Your task to perform on an android device: open wifi settings Image 0: 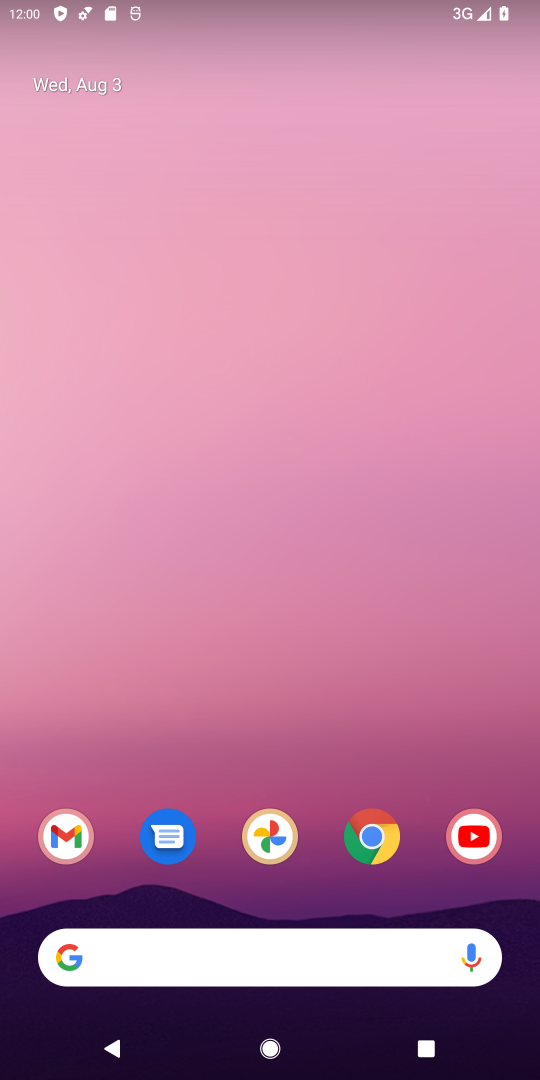
Step 0: drag from (251, 876) to (274, 565)
Your task to perform on an android device: open wifi settings Image 1: 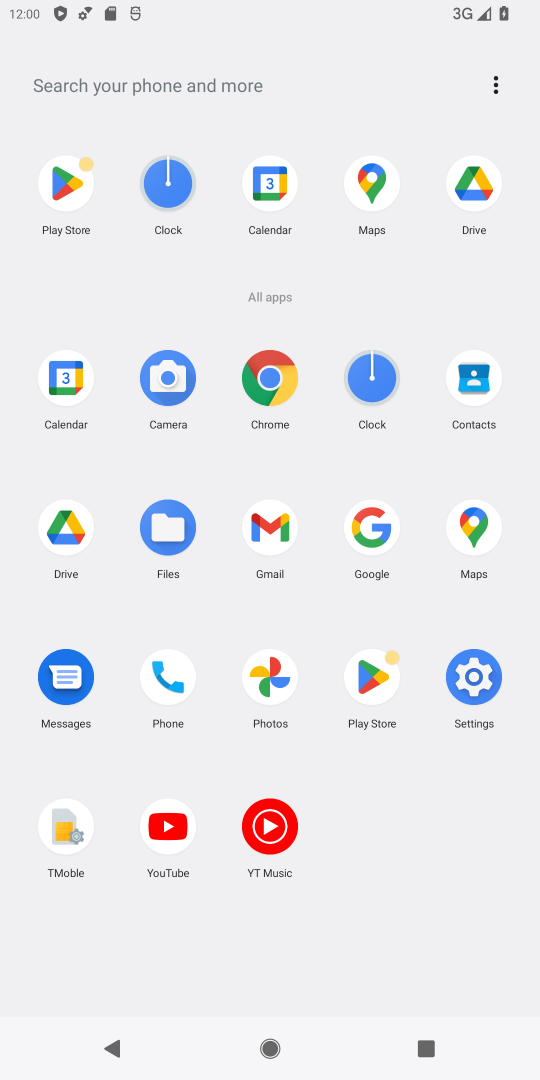
Step 1: click (462, 667)
Your task to perform on an android device: open wifi settings Image 2: 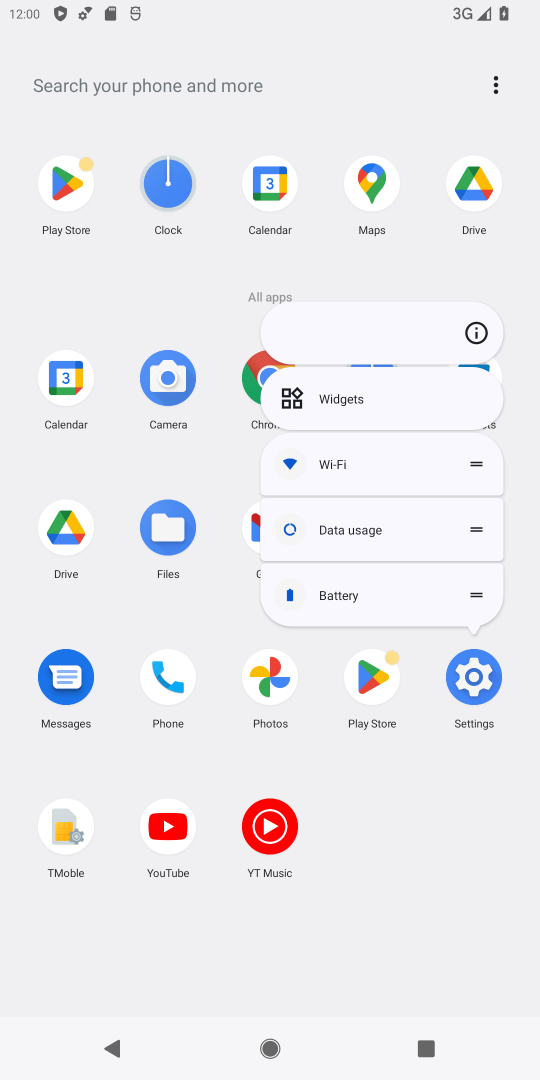
Step 2: click (477, 326)
Your task to perform on an android device: open wifi settings Image 3: 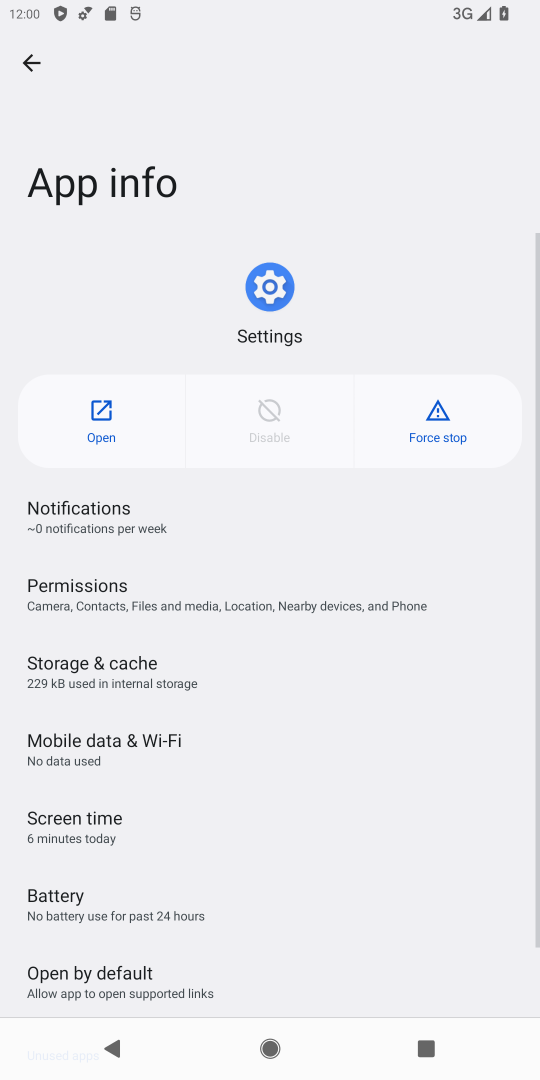
Step 3: click (88, 404)
Your task to perform on an android device: open wifi settings Image 4: 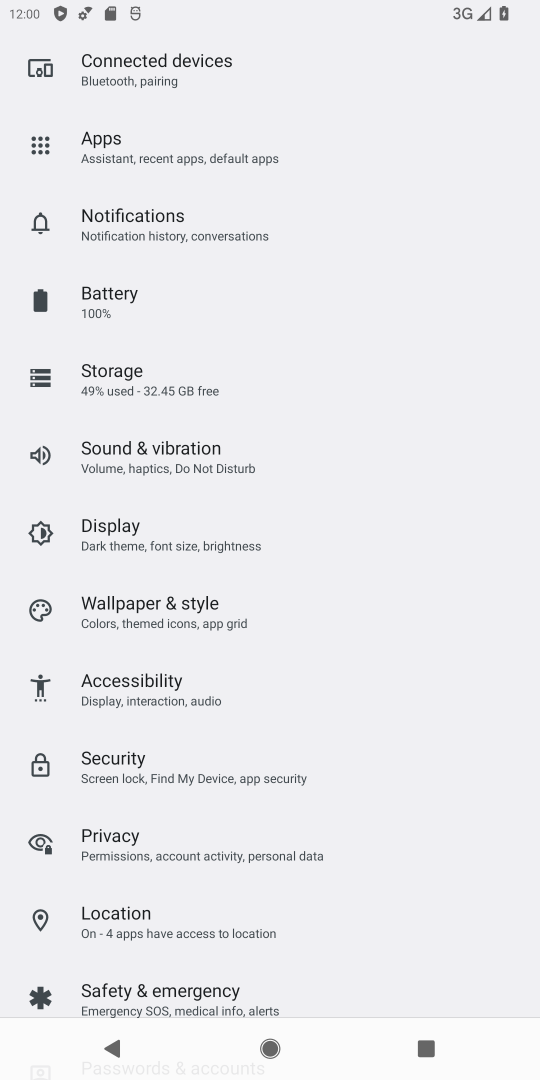
Step 4: drag from (299, 118) to (257, 958)
Your task to perform on an android device: open wifi settings Image 5: 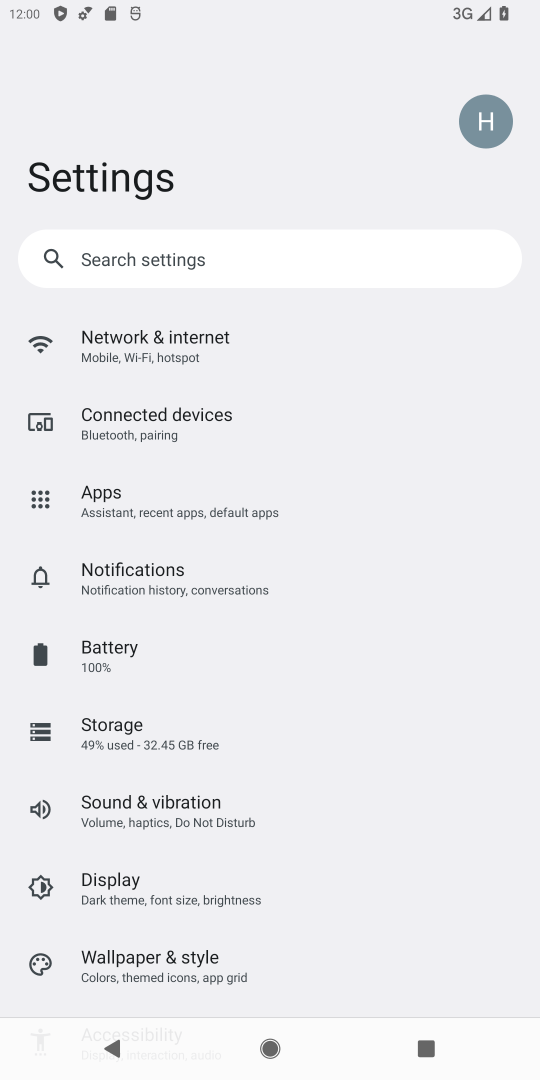
Step 5: click (188, 345)
Your task to perform on an android device: open wifi settings Image 6: 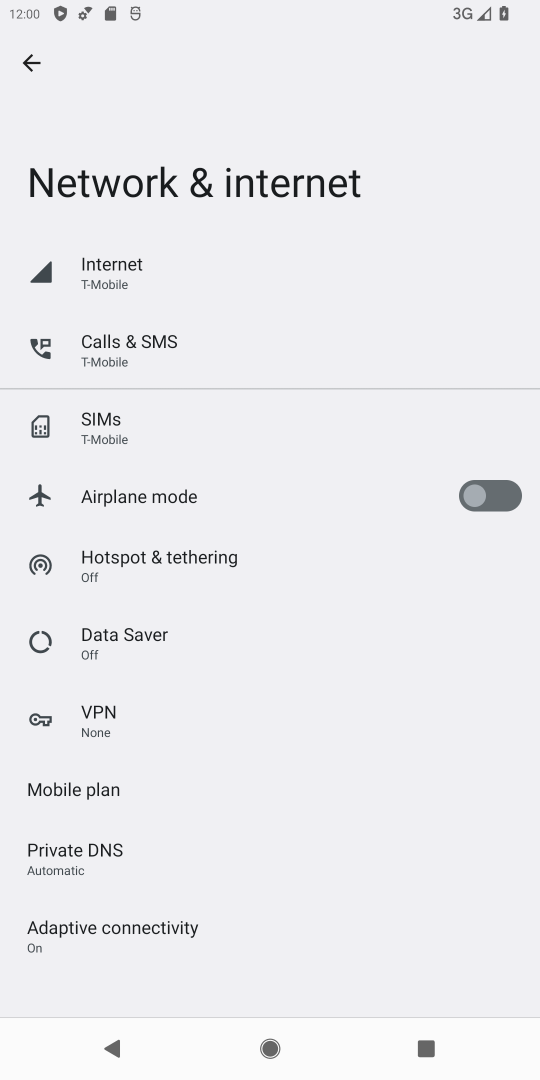
Step 6: click (145, 276)
Your task to perform on an android device: open wifi settings Image 7: 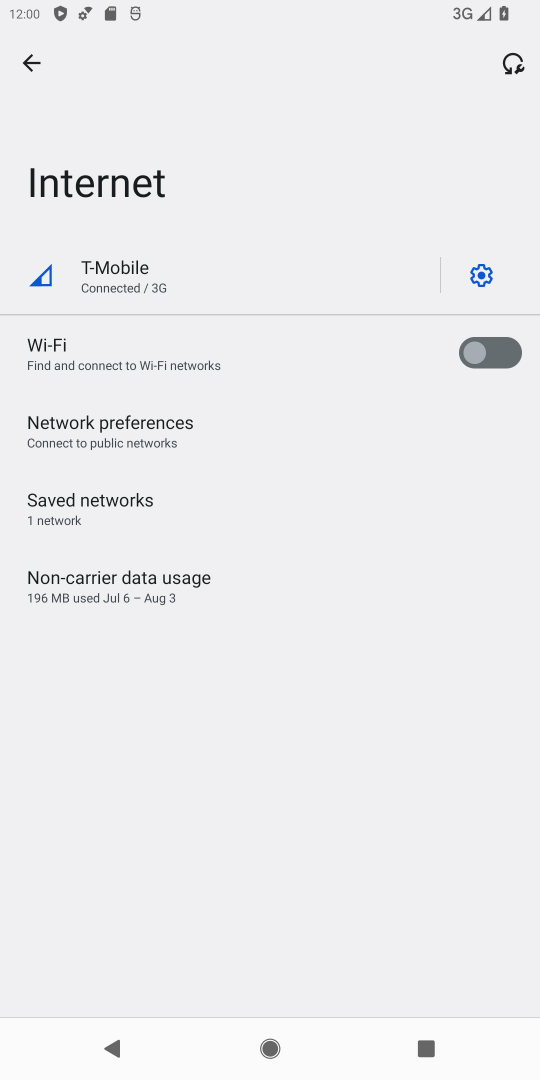
Step 7: drag from (240, 777) to (253, 216)
Your task to perform on an android device: open wifi settings Image 8: 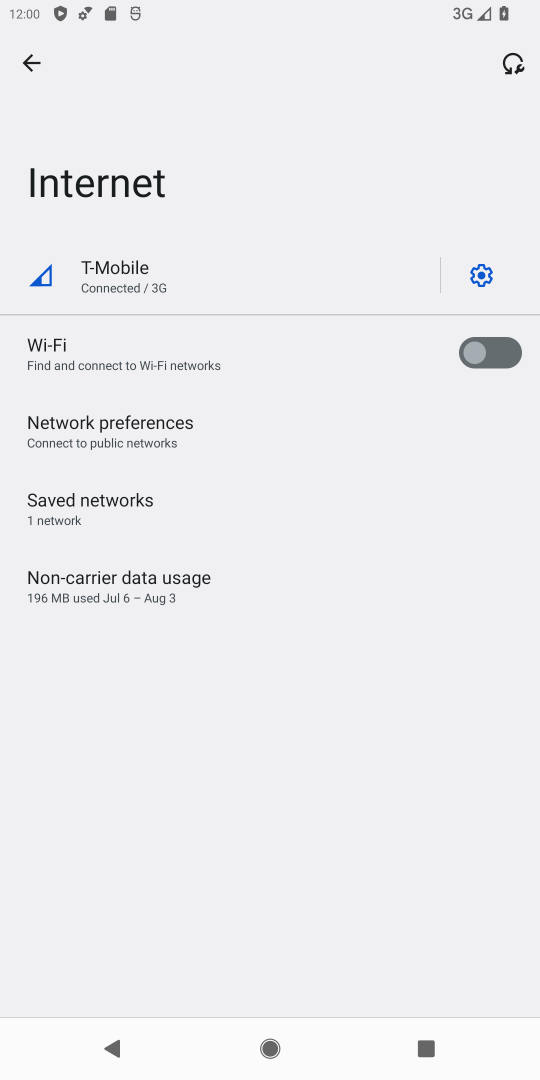
Step 8: drag from (253, 858) to (247, 335)
Your task to perform on an android device: open wifi settings Image 9: 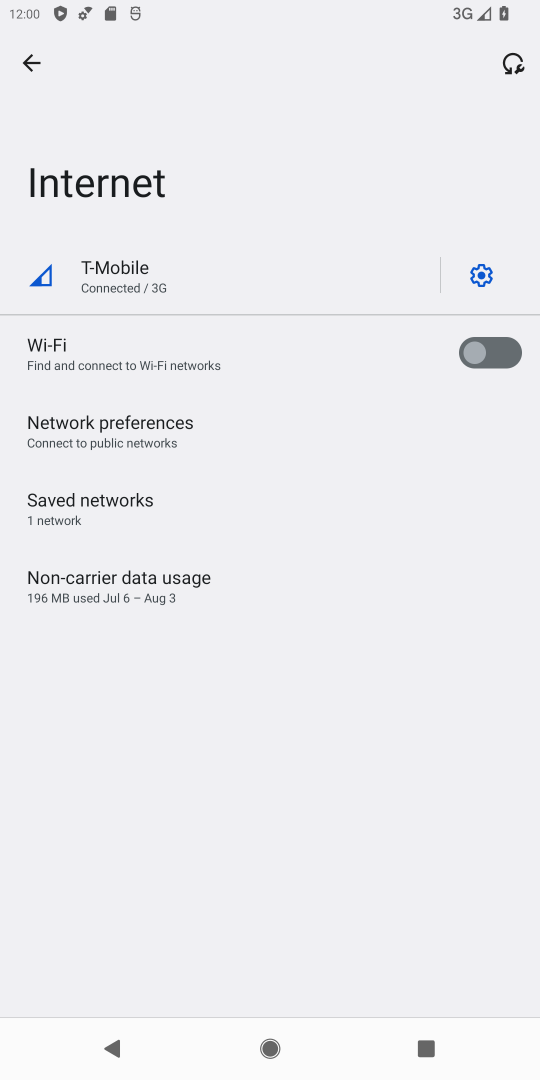
Step 9: click (472, 274)
Your task to perform on an android device: open wifi settings Image 10: 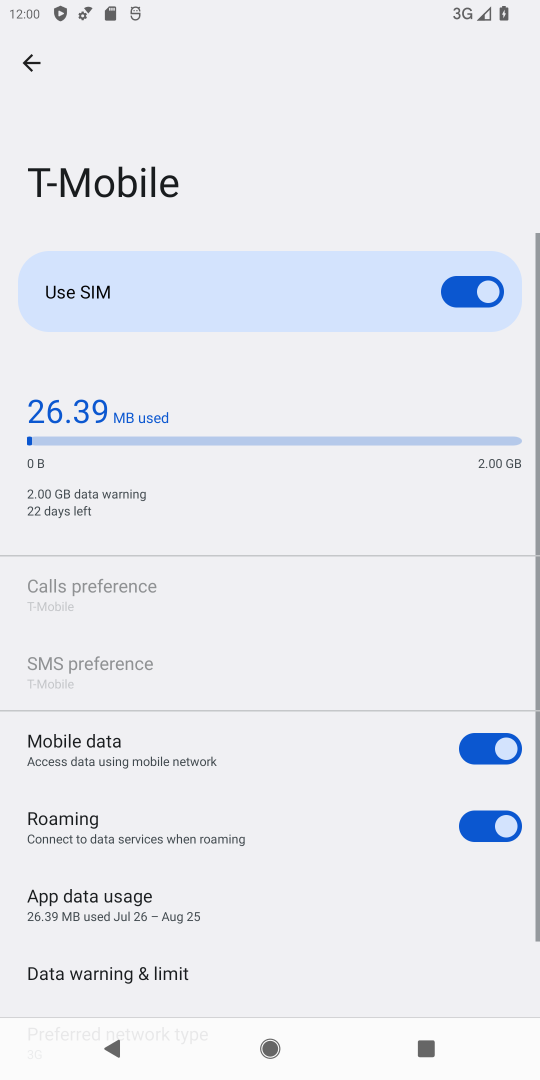
Step 10: task complete